Your task to perform on an android device: refresh tabs in the chrome app Image 0: 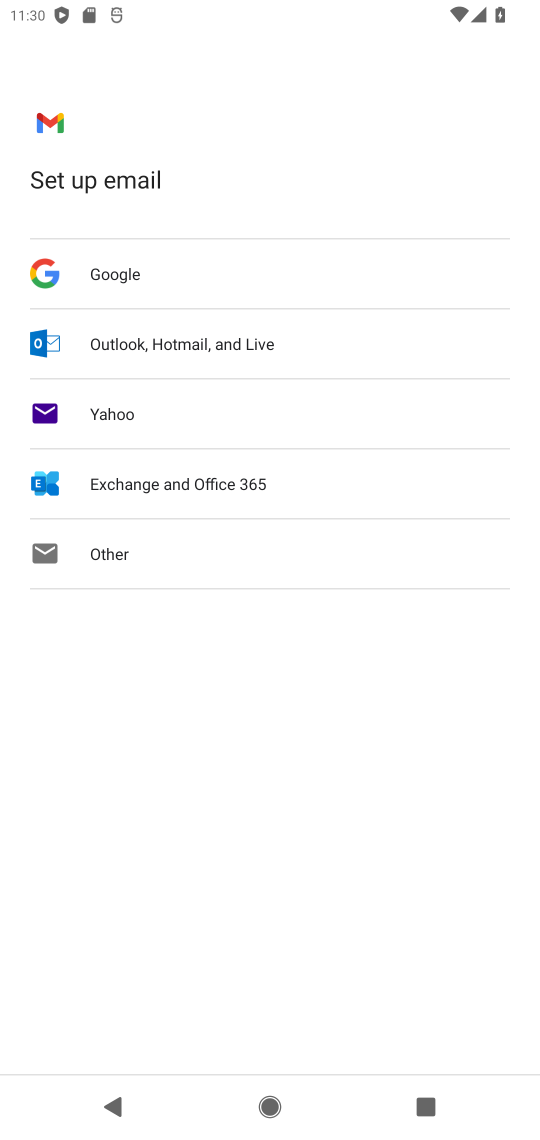
Step 0: press home button
Your task to perform on an android device: refresh tabs in the chrome app Image 1: 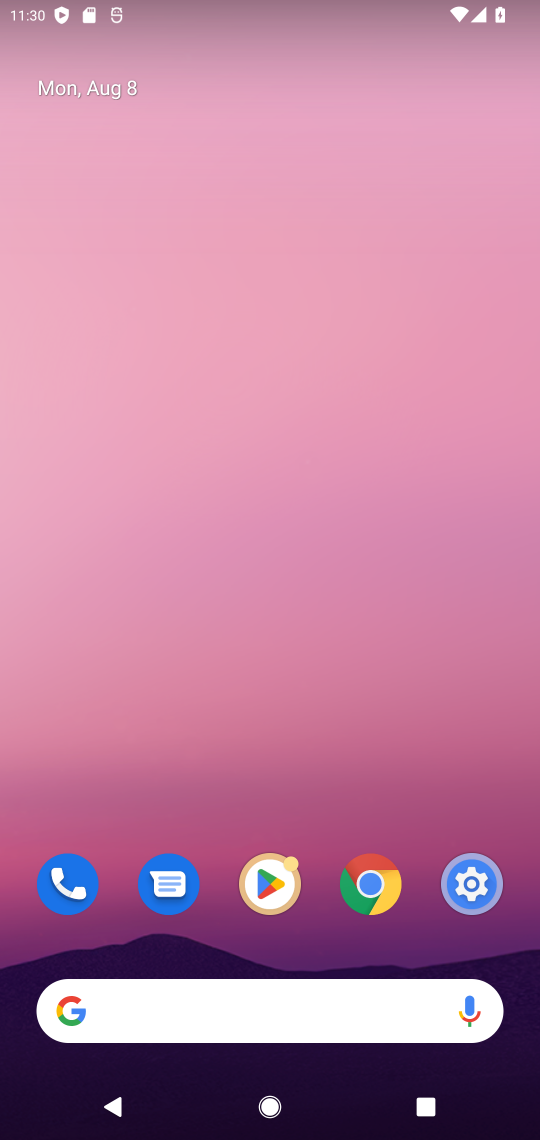
Step 1: click (375, 881)
Your task to perform on an android device: refresh tabs in the chrome app Image 2: 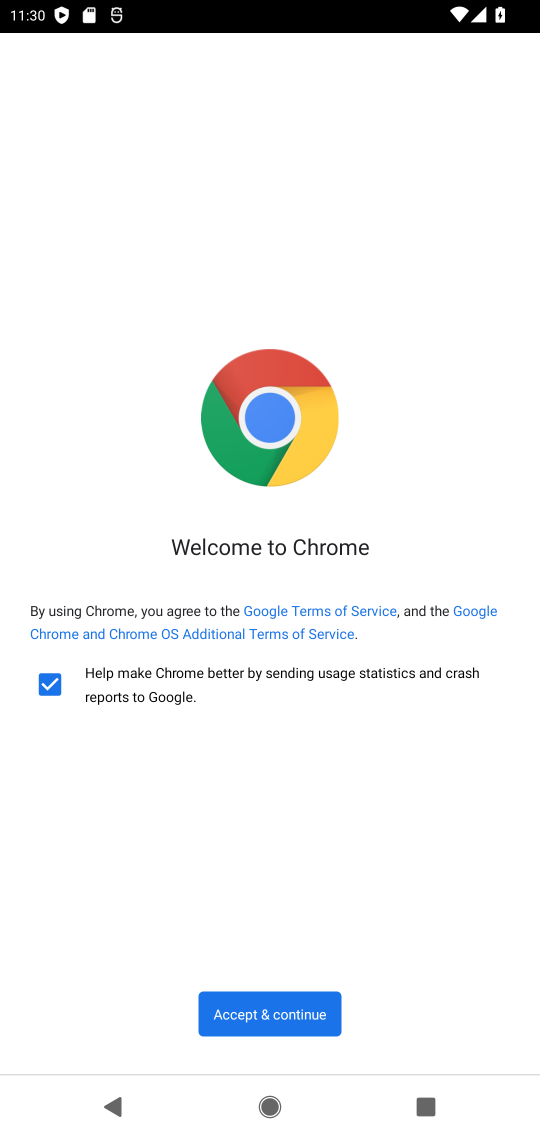
Step 2: click (273, 1023)
Your task to perform on an android device: refresh tabs in the chrome app Image 3: 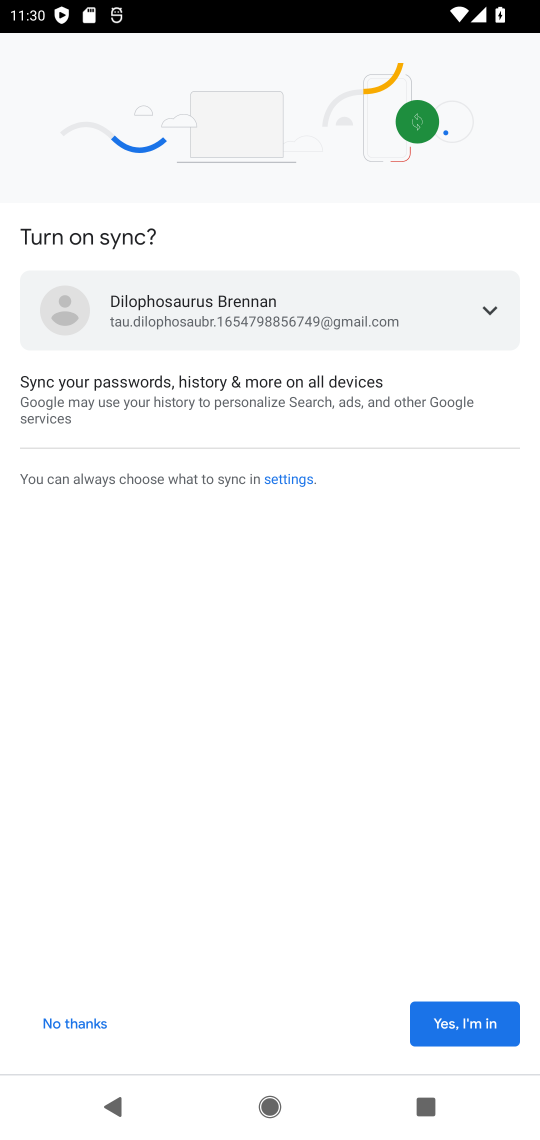
Step 3: click (494, 1013)
Your task to perform on an android device: refresh tabs in the chrome app Image 4: 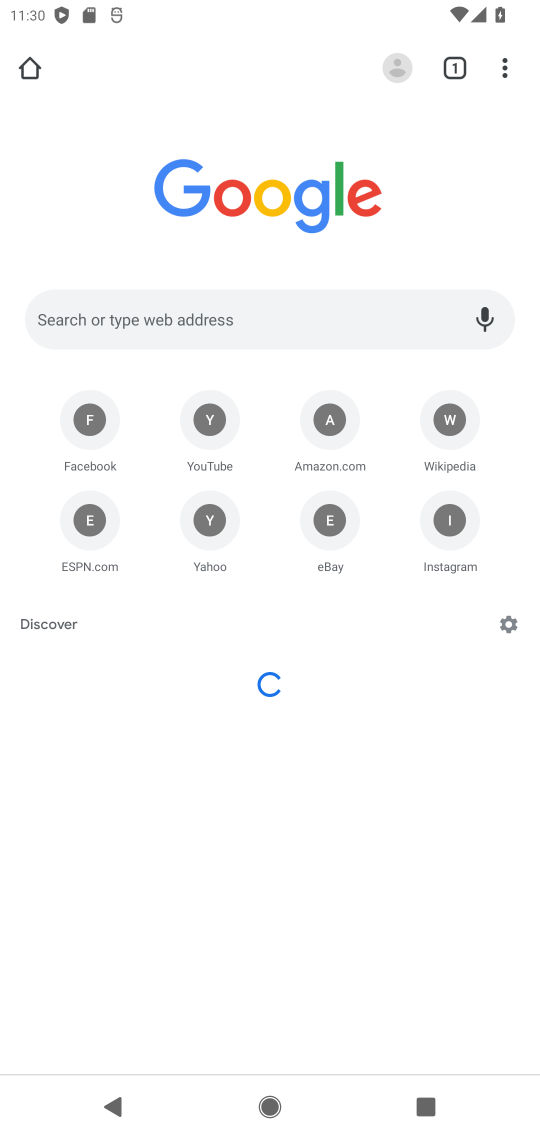
Step 4: click (495, 63)
Your task to perform on an android device: refresh tabs in the chrome app Image 5: 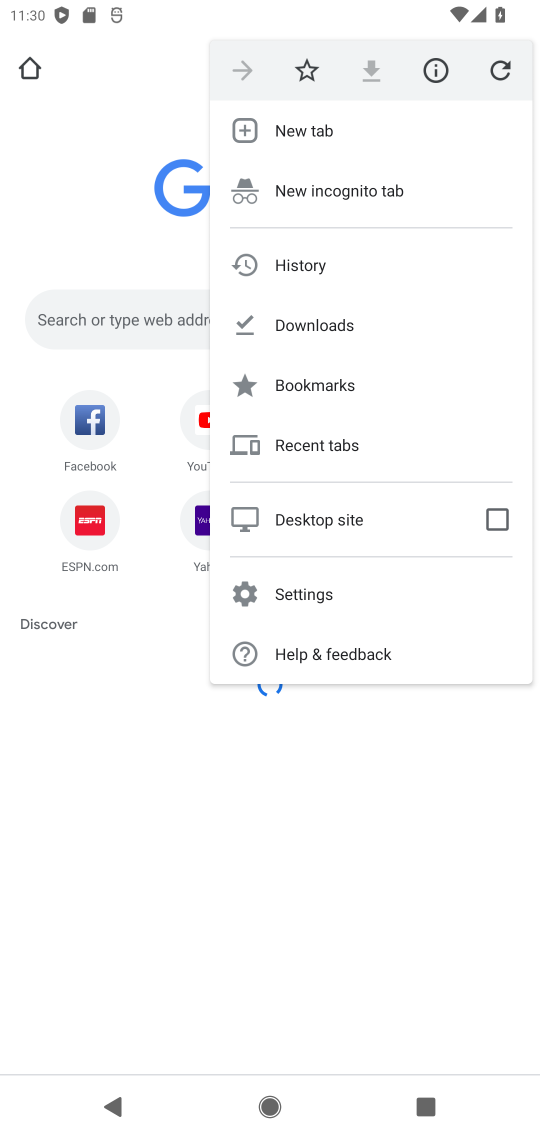
Step 5: click (508, 59)
Your task to perform on an android device: refresh tabs in the chrome app Image 6: 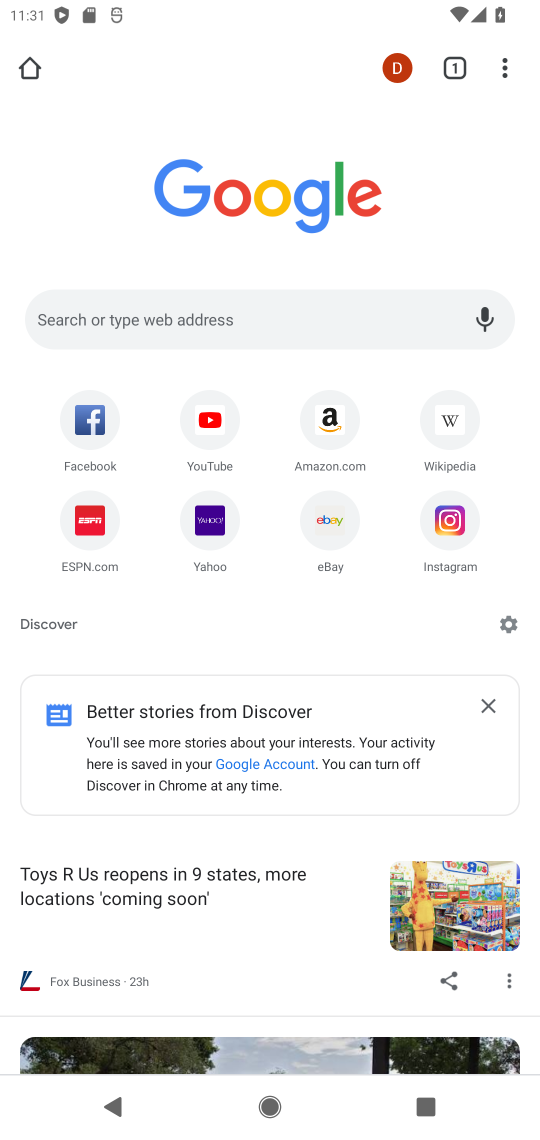
Step 6: task complete